Your task to perform on an android device: see sites visited before in the chrome app Image 0: 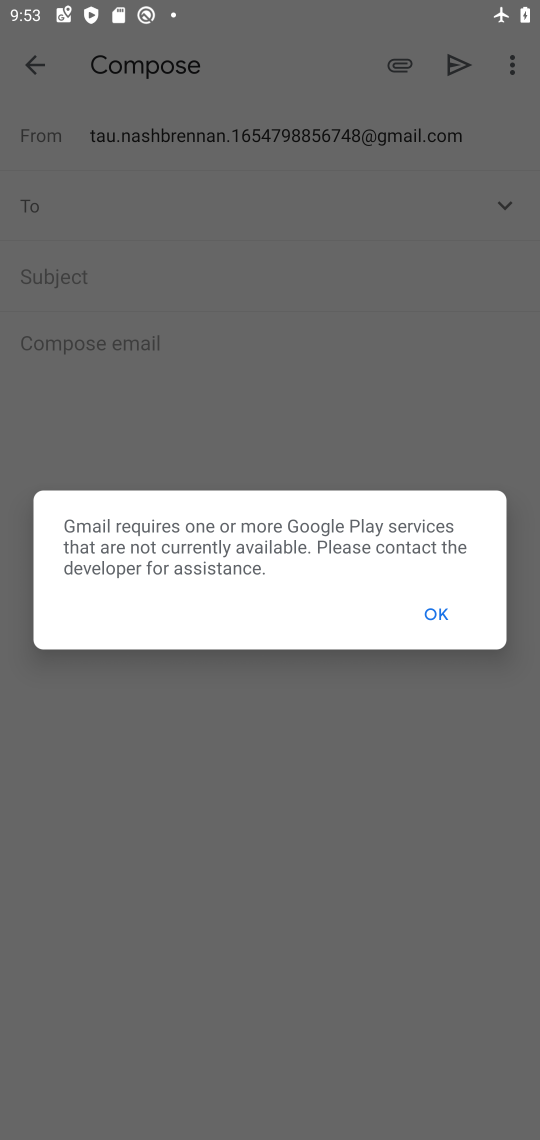
Step 0: press back button
Your task to perform on an android device: see sites visited before in the chrome app Image 1: 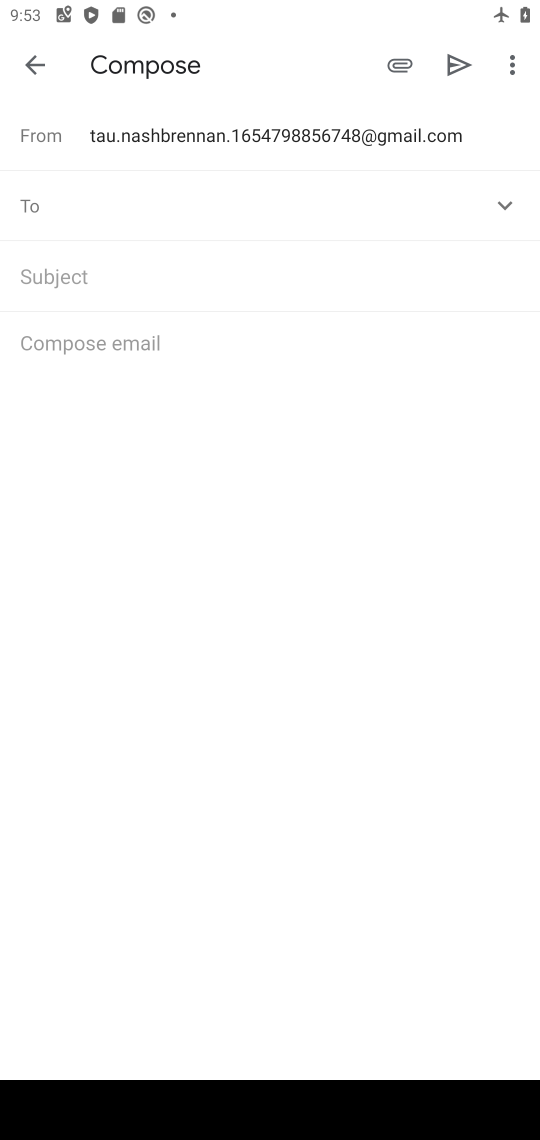
Step 1: press home button
Your task to perform on an android device: see sites visited before in the chrome app Image 2: 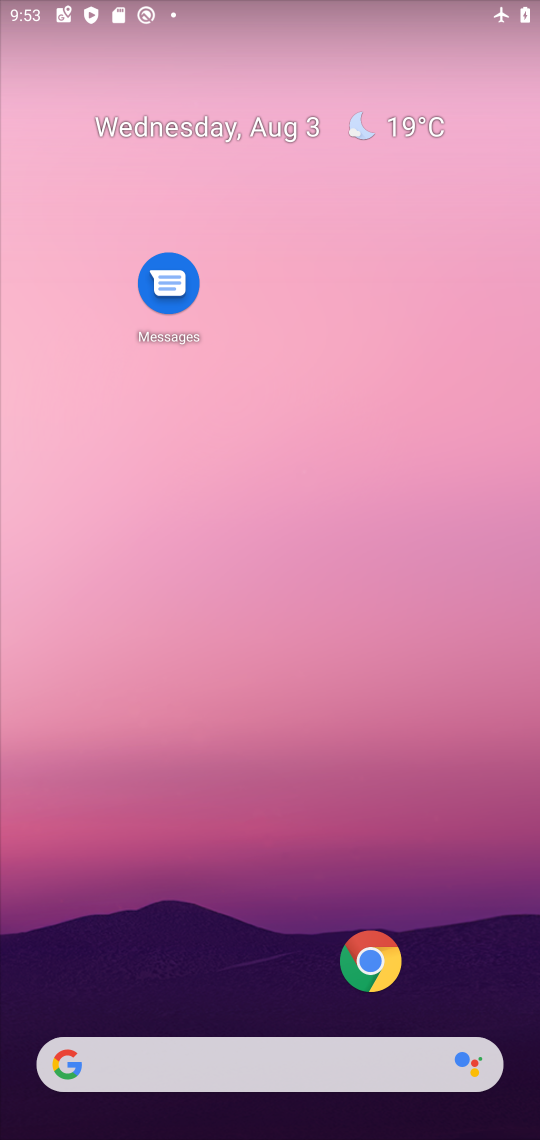
Step 2: drag from (297, 1030) to (161, 52)
Your task to perform on an android device: see sites visited before in the chrome app Image 3: 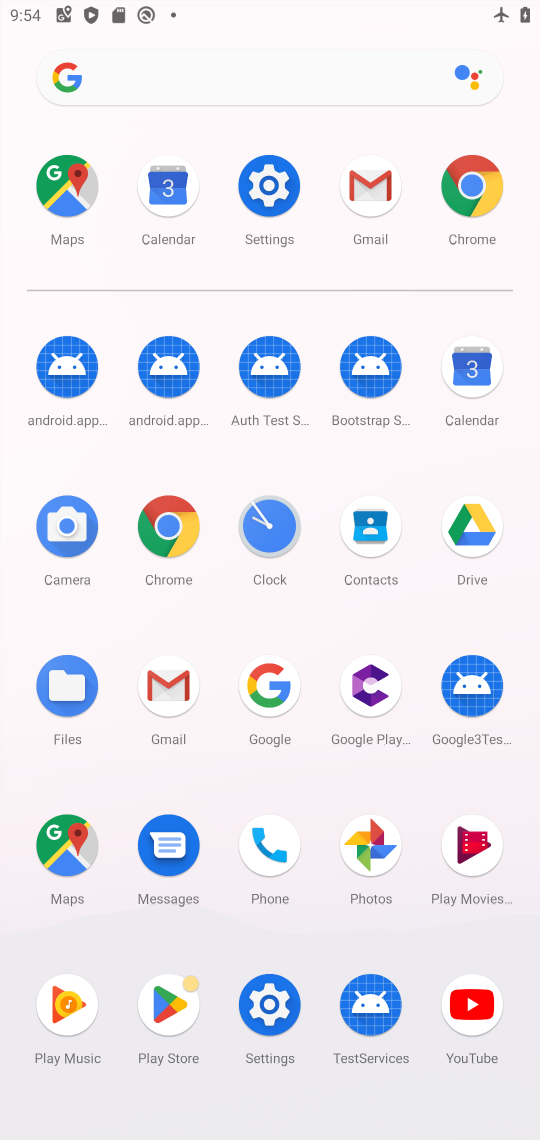
Step 3: click (168, 511)
Your task to perform on an android device: see sites visited before in the chrome app Image 4: 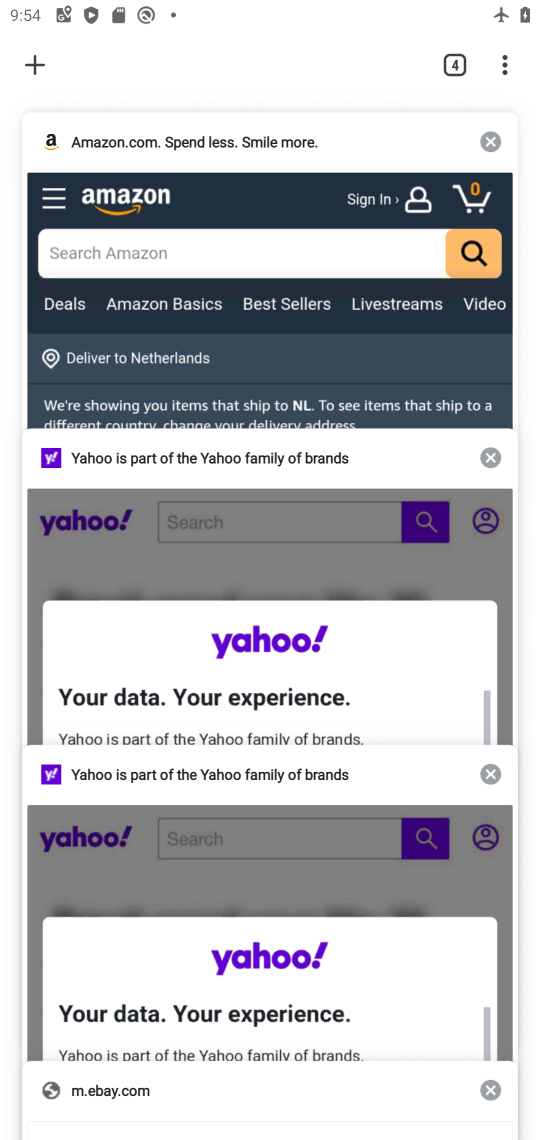
Step 4: task complete